Your task to perform on an android device: set the stopwatch Image 0: 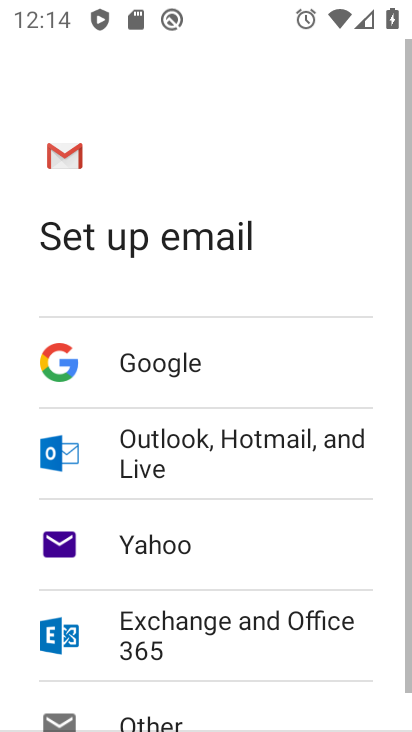
Step 0: press home button
Your task to perform on an android device: set the stopwatch Image 1: 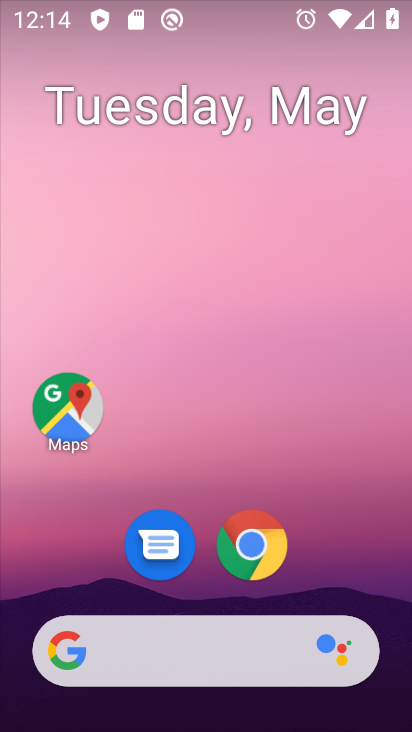
Step 1: drag from (303, 533) to (273, 175)
Your task to perform on an android device: set the stopwatch Image 2: 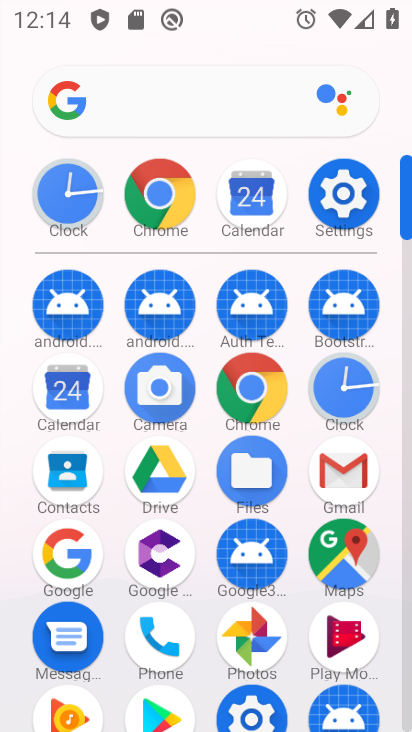
Step 2: click (68, 187)
Your task to perform on an android device: set the stopwatch Image 3: 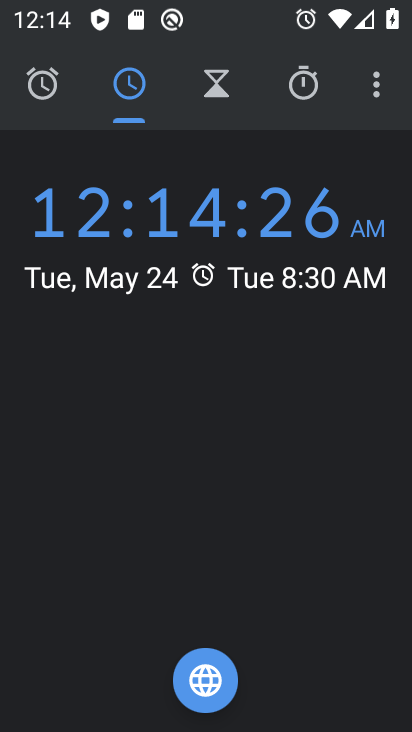
Step 3: click (358, 73)
Your task to perform on an android device: set the stopwatch Image 4: 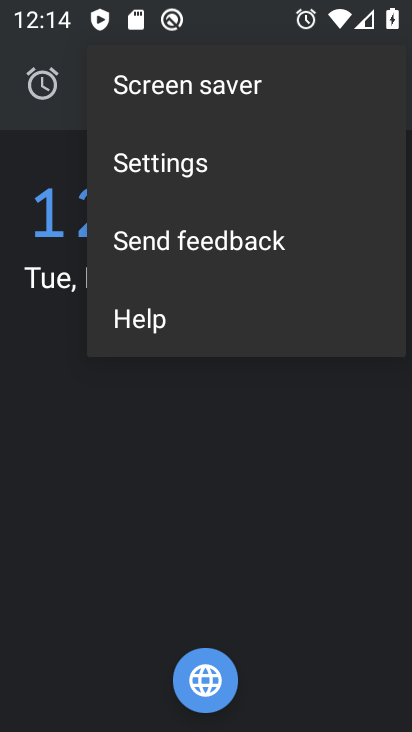
Step 4: click (213, 169)
Your task to perform on an android device: set the stopwatch Image 5: 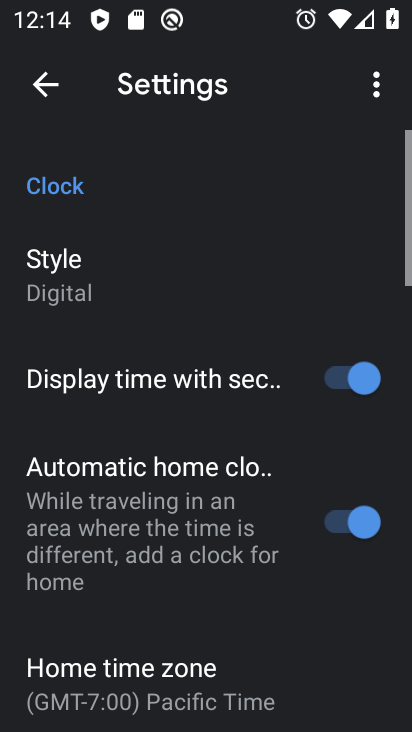
Step 5: drag from (106, 548) to (107, 263)
Your task to perform on an android device: set the stopwatch Image 6: 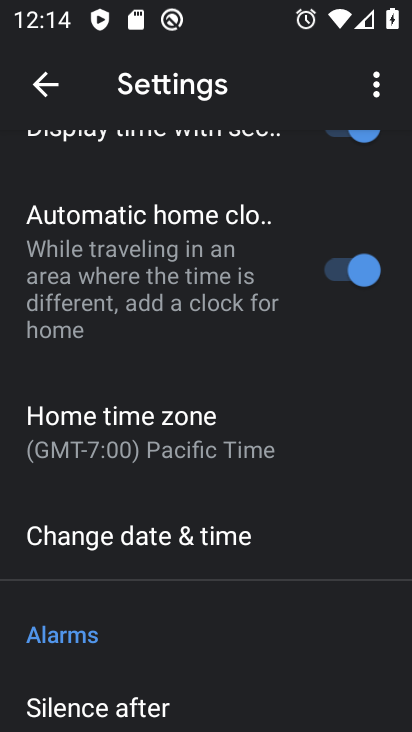
Step 6: drag from (128, 542) to (138, 289)
Your task to perform on an android device: set the stopwatch Image 7: 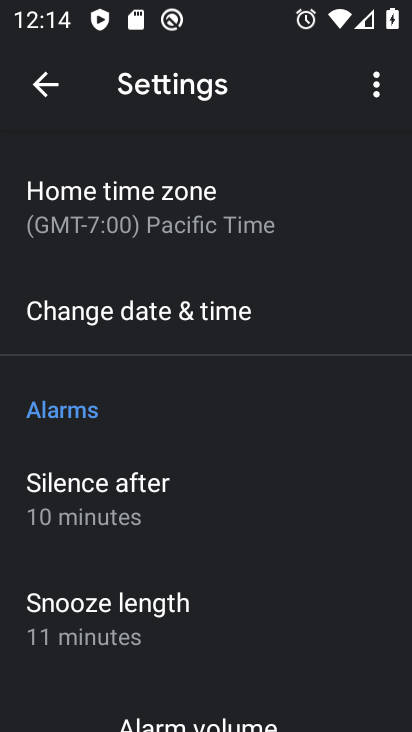
Step 7: click (148, 546)
Your task to perform on an android device: set the stopwatch Image 8: 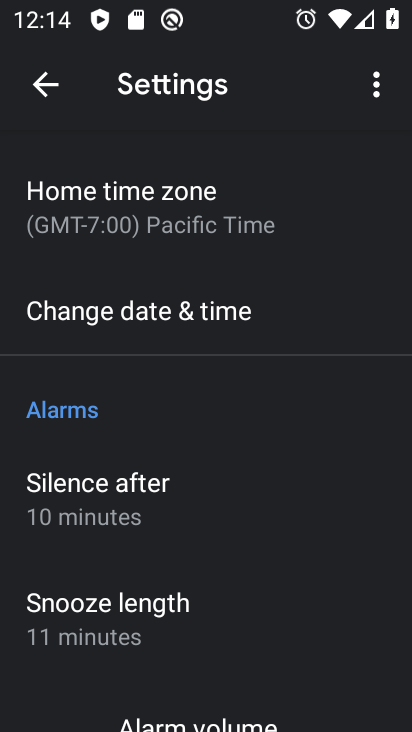
Step 8: click (200, 619)
Your task to perform on an android device: set the stopwatch Image 9: 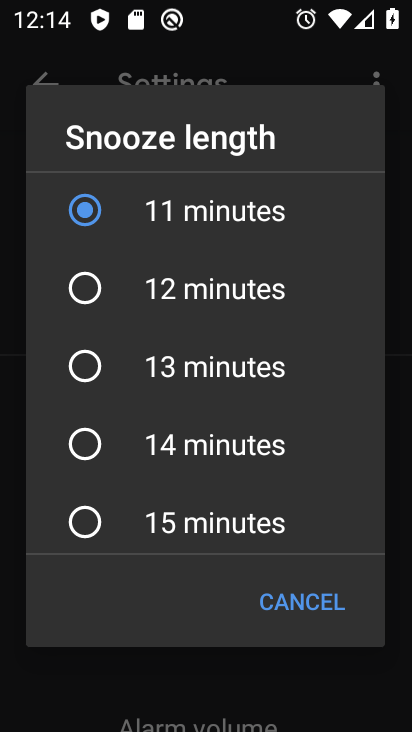
Step 9: click (271, 606)
Your task to perform on an android device: set the stopwatch Image 10: 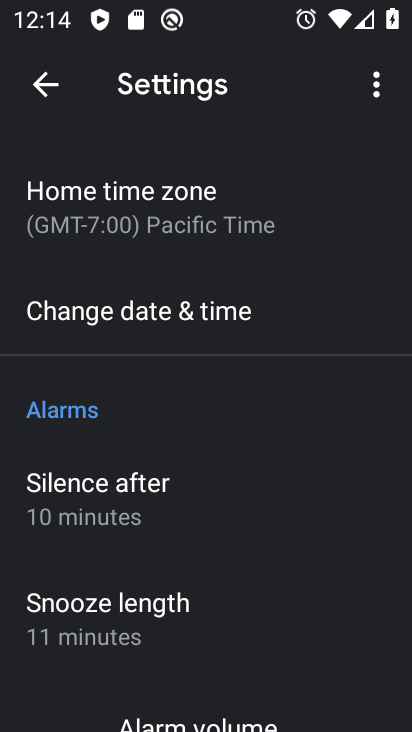
Step 10: press back button
Your task to perform on an android device: set the stopwatch Image 11: 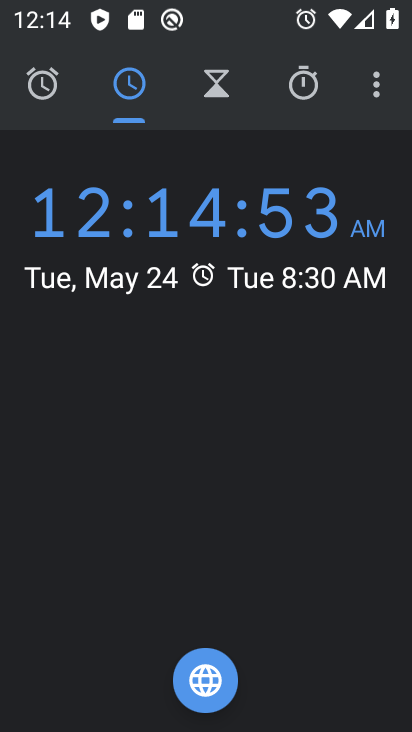
Step 11: click (206, 91)
Your task to perform on an android device: set the stopwatch Image 12: 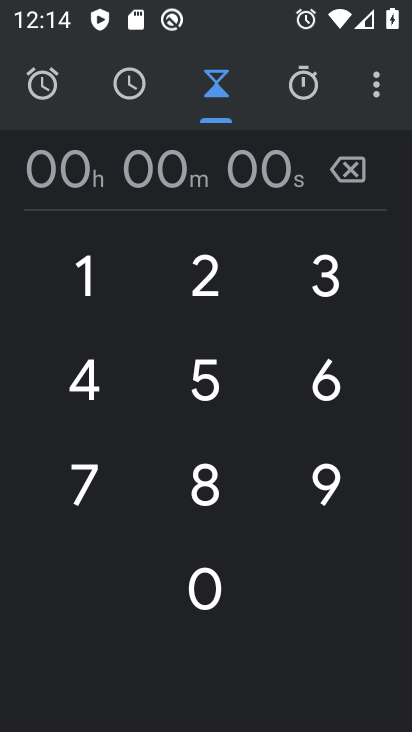
Step 12: task complete